Your task to perform on an android device: open the mobile data screen to see how much data has been used Image 0: 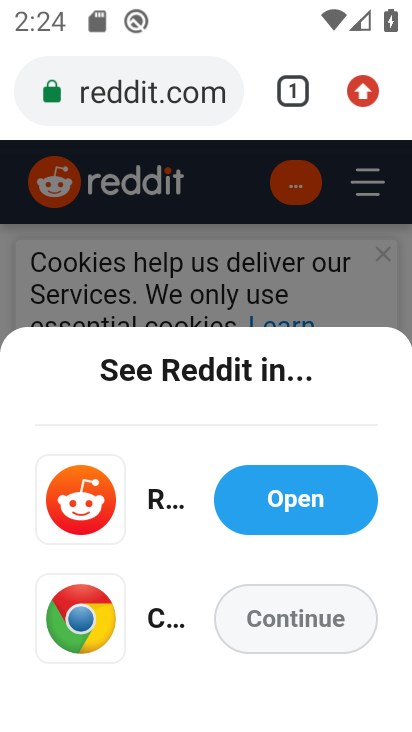
Step 0: press home button
Your task to perform on an android device: open the mobile data screen to see how much data has been used Image 1: 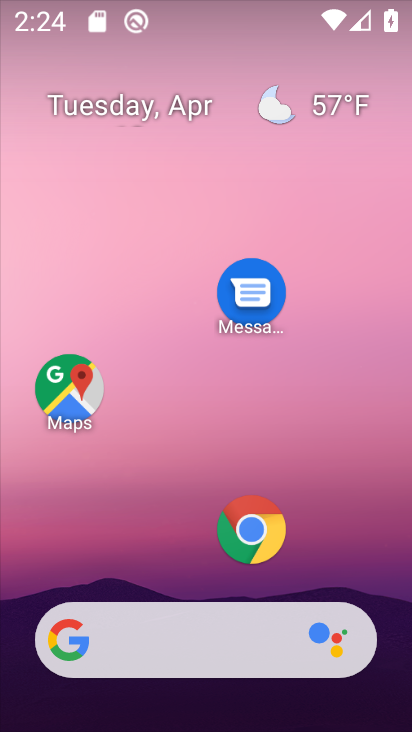
Step 1: drag from (200, 539) to (180, 135)
Your task to perform on an android device: open the mobile data screen to see how much data has been used Image 2: 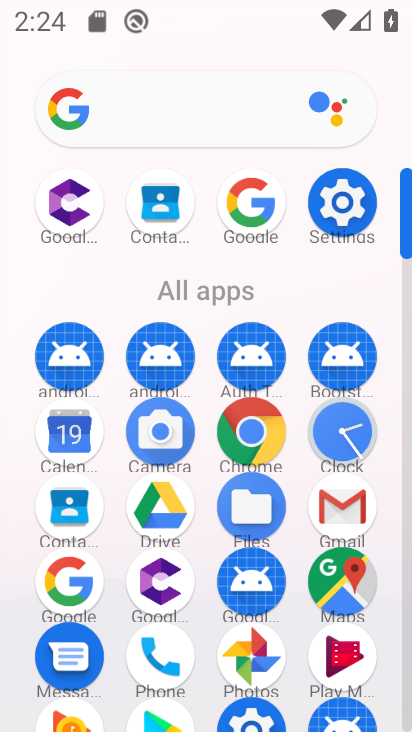
Step 2: click (347, 207)
Your task to perform on an android device: open the mobile data screen to see how much data has been used Image 3: 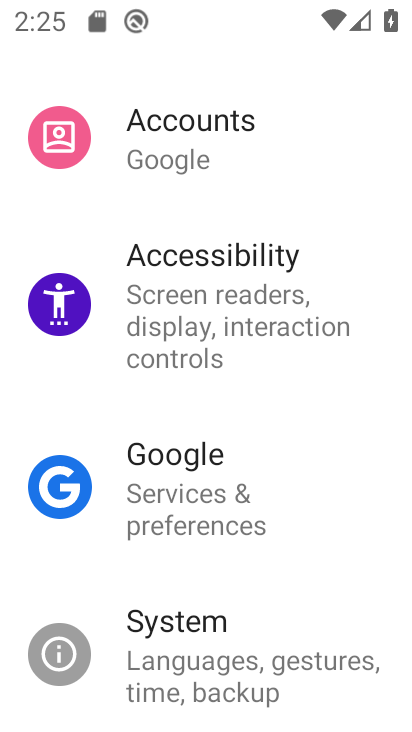
Step 3: drag from (268, 221) to (302, 629)
Your task to perform on an android device: open the mobile data screen to see how much data has been used Image 4: 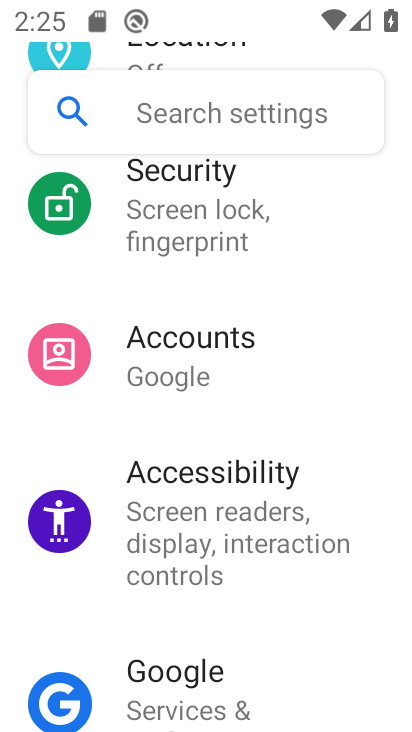
Step 4: drag from (224, 296) to (308, 660)
Your task to perform on an android device: open the mobile data screen to see how much data has been used Image 5: 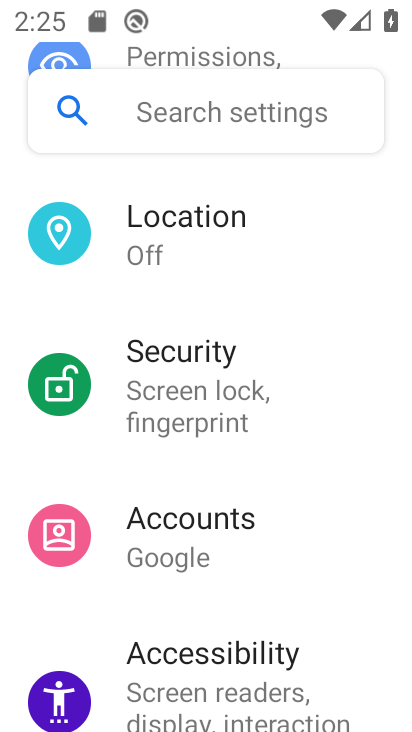
Step 5: drag from (213, 519) to (234, 680)
Your task to perform on an android device: open the mobile data screen to see how much data has been used Image 6: 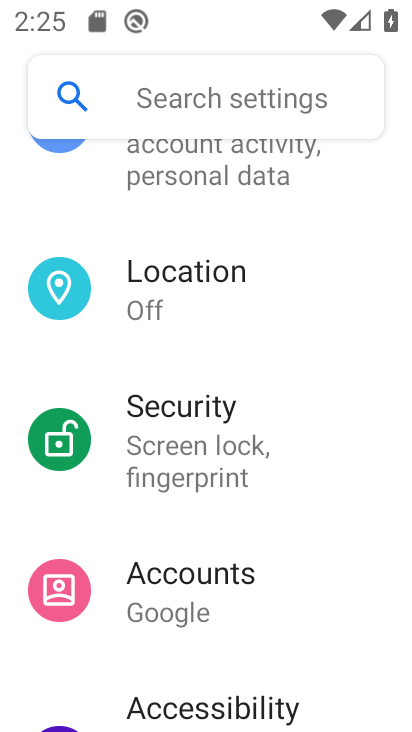
Step 6: drag from (182, 231) to (250, 720)
Your task to perform on an android device: open the mobile data screen to see how much data has been used Image 7: 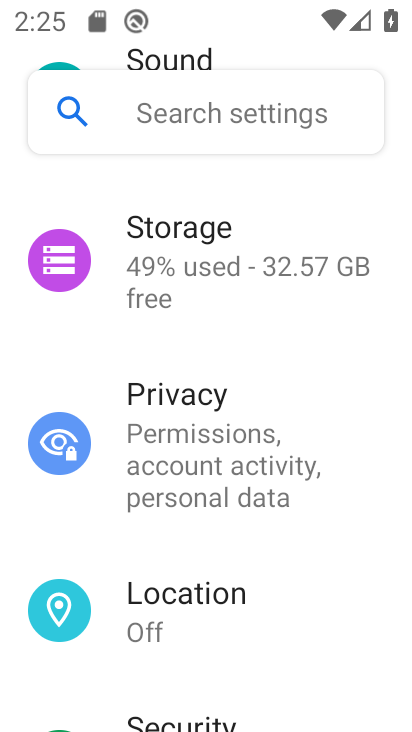
Step 7: drag from (210, 269) to (256, 716)
Your task to perform on an android device: open the mobile data screen to see how much data has been used Image 8: 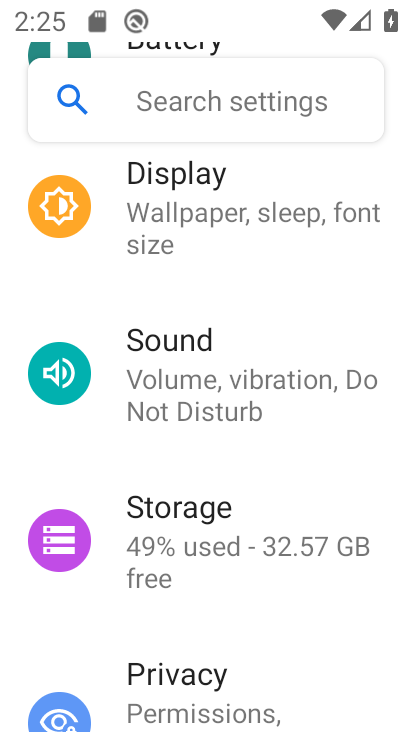
Step 8: drag from (192, 242) to (313, 644)
Your task to perform on an android device: open the mobile data screen to see how much data has been used Image 9: 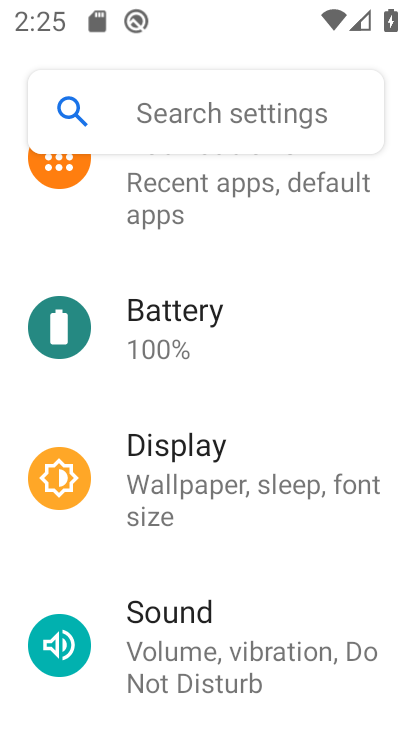
Step 9: drag from (257, 286) to (303, 646)
Your task to perform on an android device: open the mobile data screen to see how much data has been used Image 10: 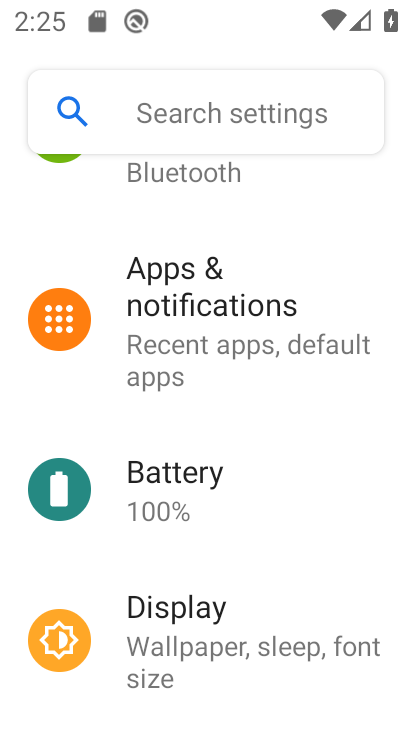
Step 10: drag from (169, 248) to (241, 629)
Your task to perform on an android device: open the mobile data screen to see how much data has been used Image 11: 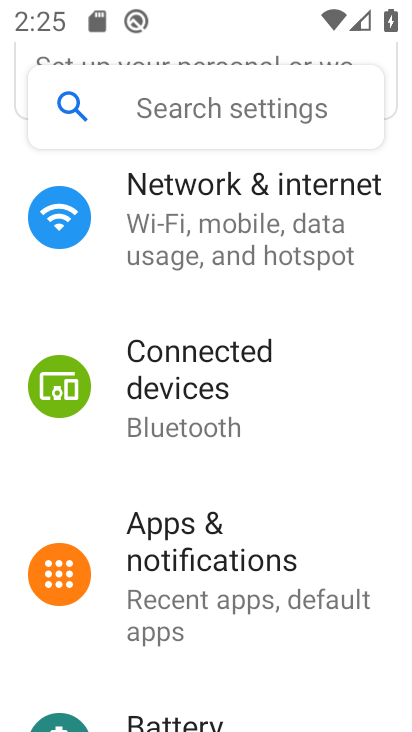
Step 11: click (203, 224)
Your task to perform on an android device: open the mobile data screen to see how much data has been used Image 12: 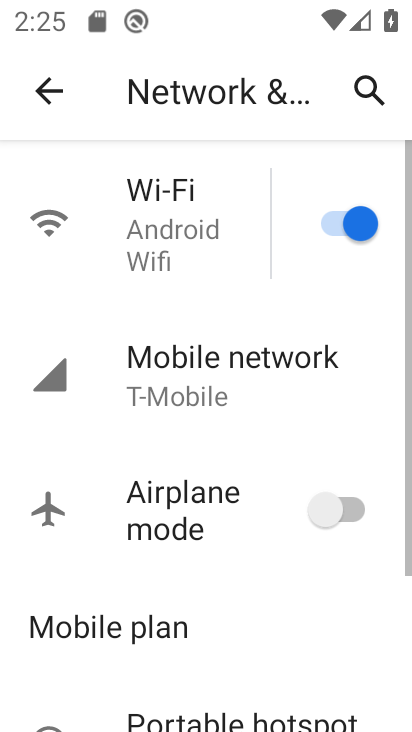
Step 12: click (204, 366)
Your task to perform on an android device: open the mobile data screen to see how much data has been used Image 13: 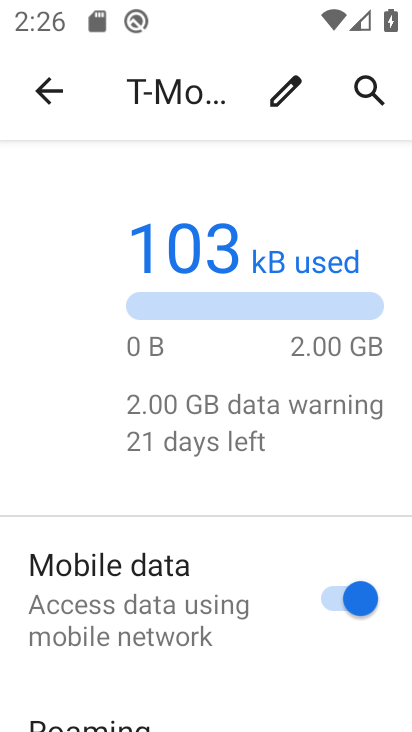
Step 13: task complete